Your task to perform on an android device: What's the weather? Image 0: 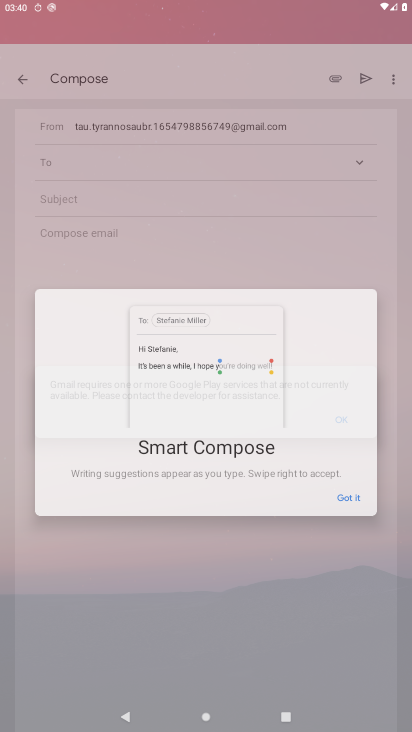
Step 0: click (100, 689)
Your task to perform on an android device: What's the weather? Image 1: 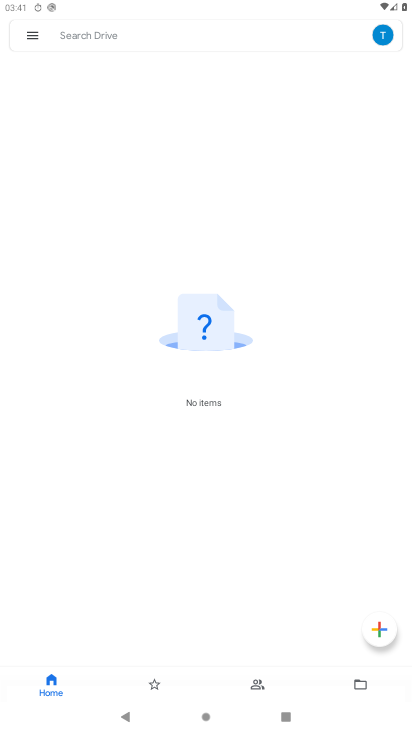
Step 1: press home button
Your task to perform on an android device: What's the weather? Image 2: 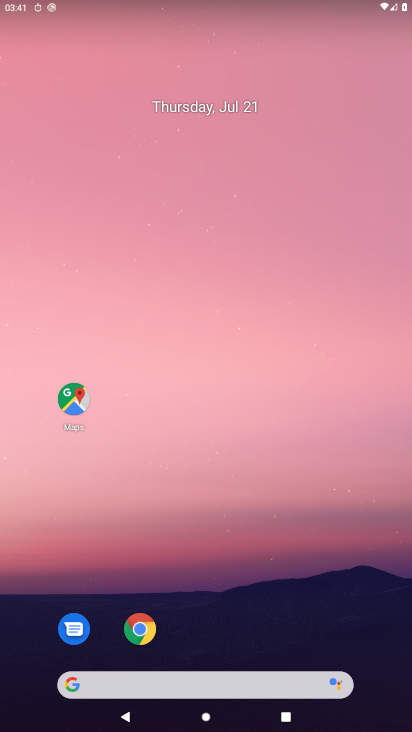
Step 2: click (130, 684)
Your task to perform on an android device: What's the weather? Image 3: 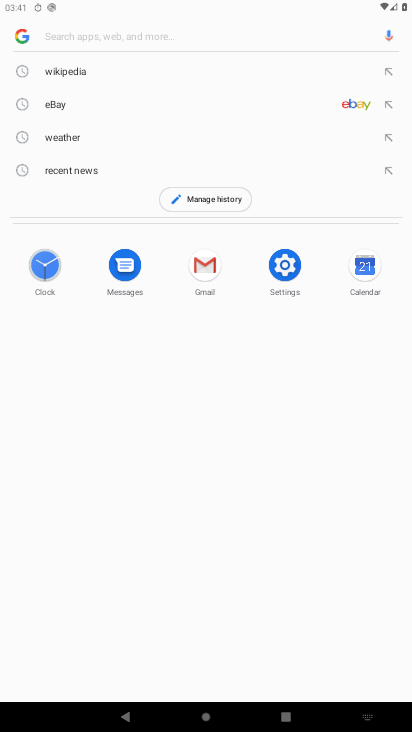
Step 3: type "What's the weather?"
Your task to perform on an android device: What's the weather? Image 4: 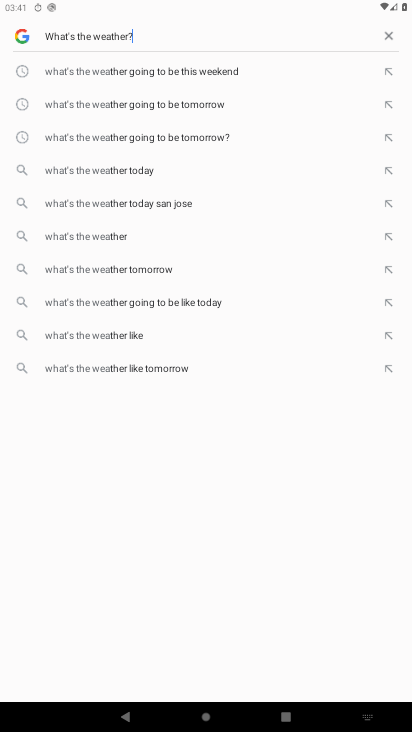
Step 4: type ""
Your task to perform on an android device: What's the weather? Image 5: 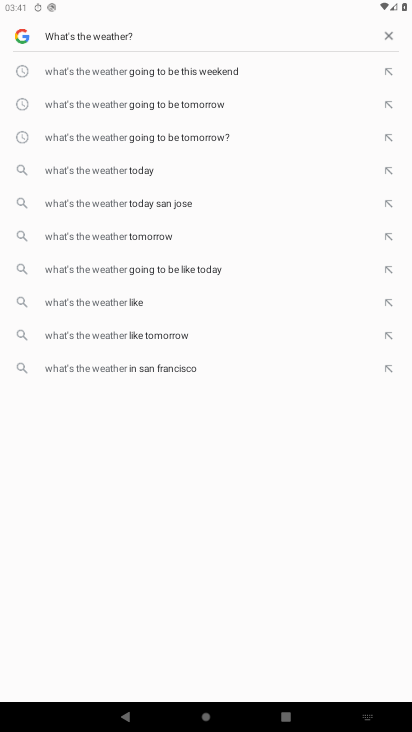
Step 5: type ""
Your task to perform on an android device: What's the weather? Image 6: 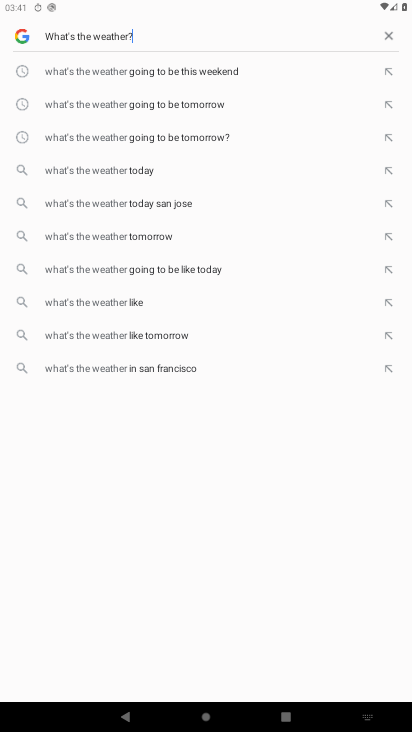
Step 6: type ""
Your task to perform on an android device: What's the weather? Image 7: 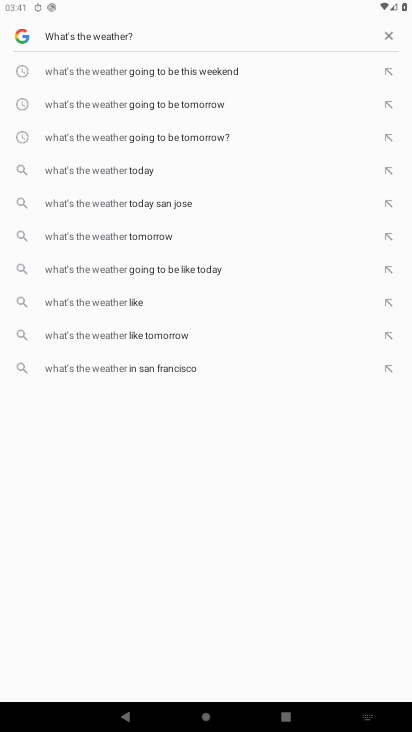
Step 7: task complete